Your task to perform on an android device: Open settings on Google Maps Image 0: 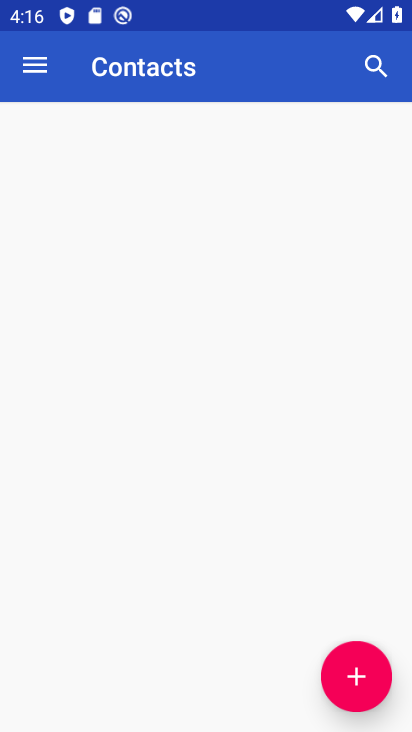
Step 0: press home button
Your task to perform on an android device: Open settings on Google Maps Image 1: 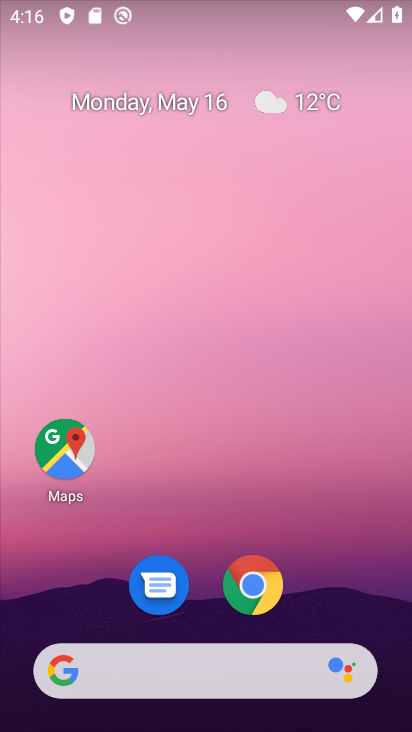
Step 1: click (58, 448)
Your task to perform on an android device: Open settings on Google Maps Image 2: 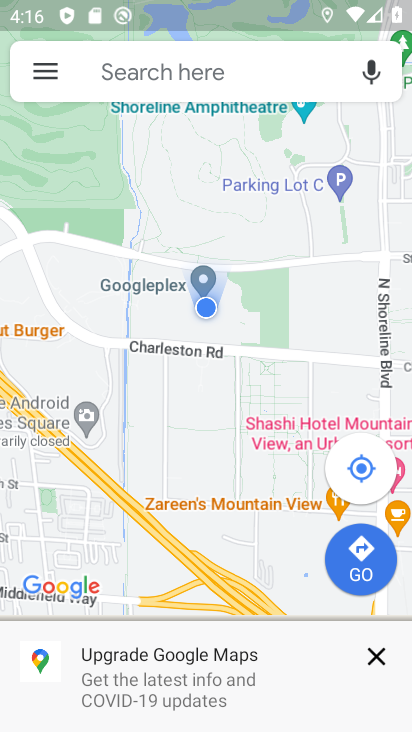
Step 2: click (42, 62)
Your task to perform on an android device: Open settings on Google Maps Image 3: 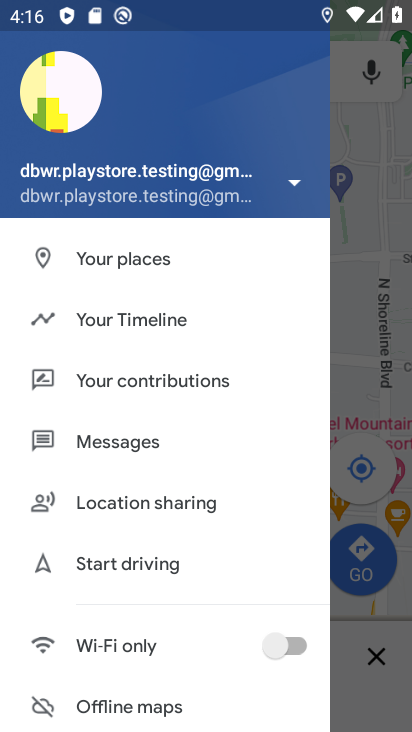
Step 3: drag from (174, 531) to (211, 48)
Your task to perform on an android device: Open settings on Google Maps Image 4: 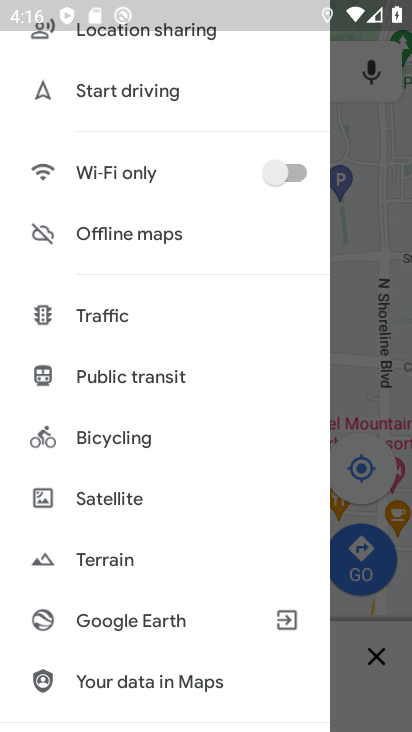
Step 4: drag from (184, 523) to (170, 247)
Your task to perform on an android device: Open settings on Google Maps Image 5: 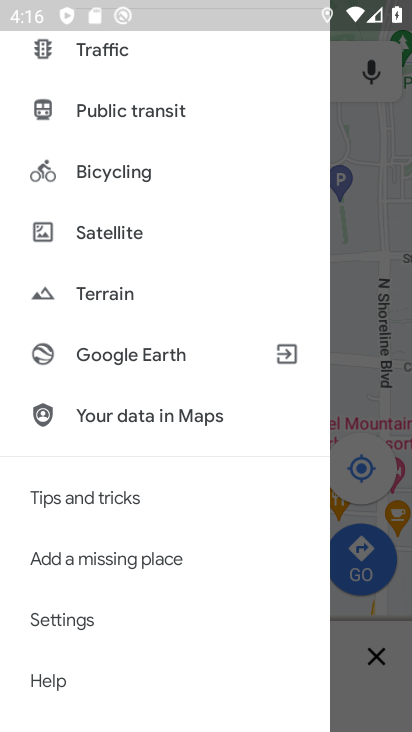
Step 5: click (105, 615)
Your task to perform on an android device: Open settings on Google Maps Image 6: 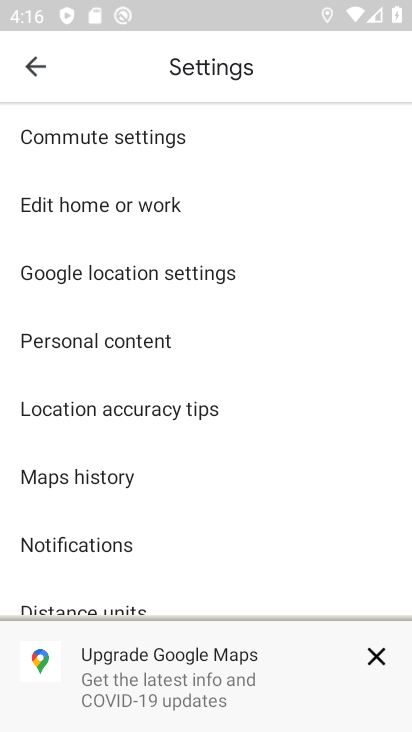
Step 6: task complete